Your task to perform on an android device: Search for Mexican restaurants on Maps Image 0: 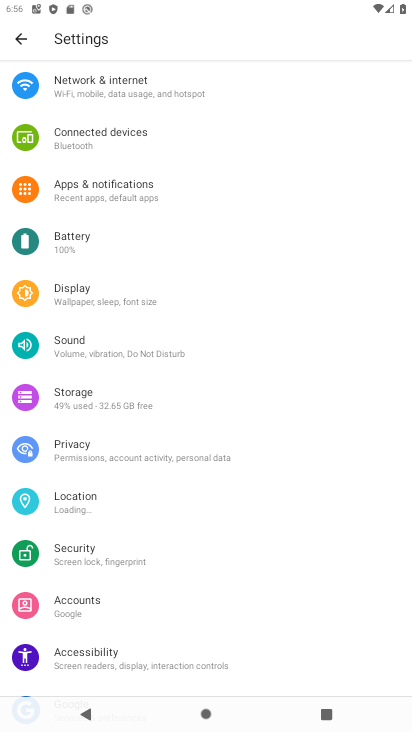
Step 0: press home button
Your task to perform on an android device: Search for Mexican restaurants on Maps Image 1: 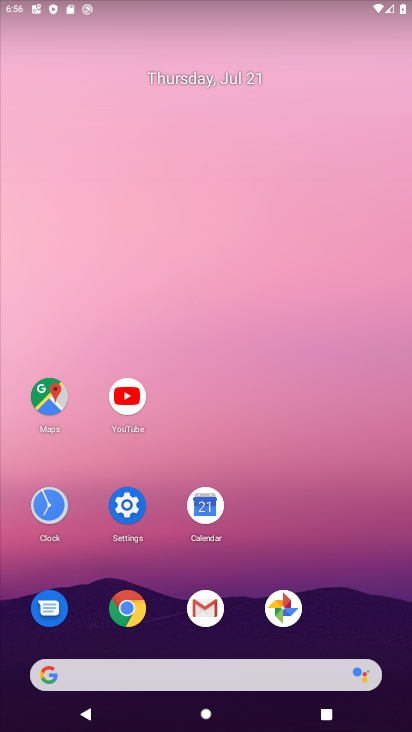
Step 1: click (44, 394)
Your task to perform on an android device: Search for Mexican restaurants on Maps Image 2: 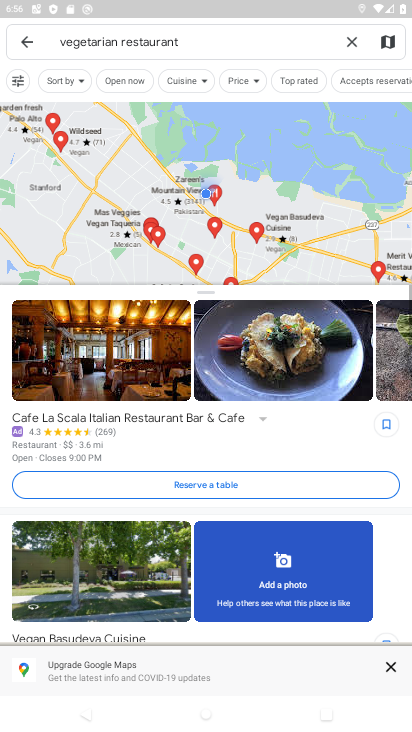
Step 2: click (353, 37)
Your task to perform on an android device: Search for Mexican restaurants on Maps Image 3: 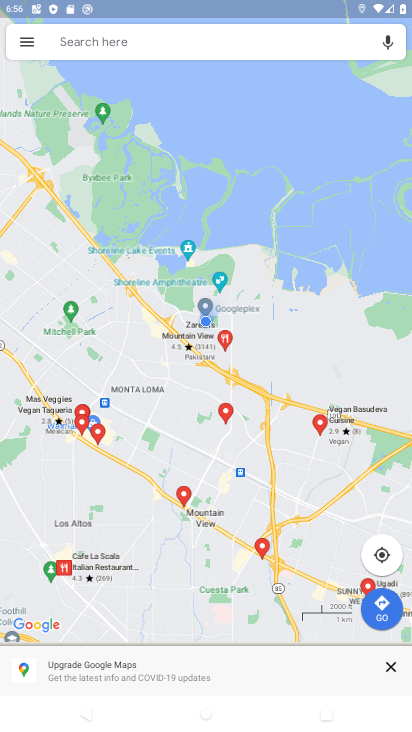
Step 3: click (108, 38)
Your task to perform on an android device: Search for Mexican restaurants on Maps Image 4: 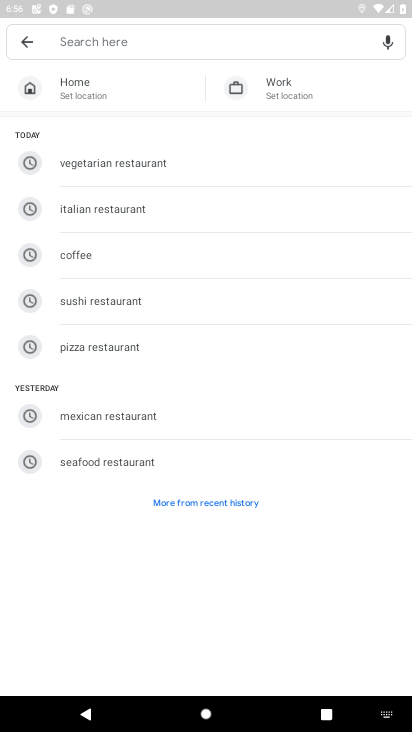
Step 4: click (113, 418)
Your task to perform on an android device: Search for Mexican restaurants on Maps Image 5: 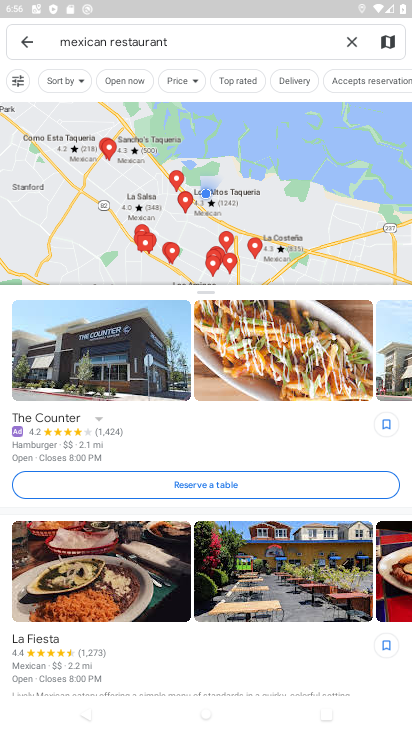
Step 5: task complete